Your task to perform on an android device: turn pop-ups off in chrome Image 0: 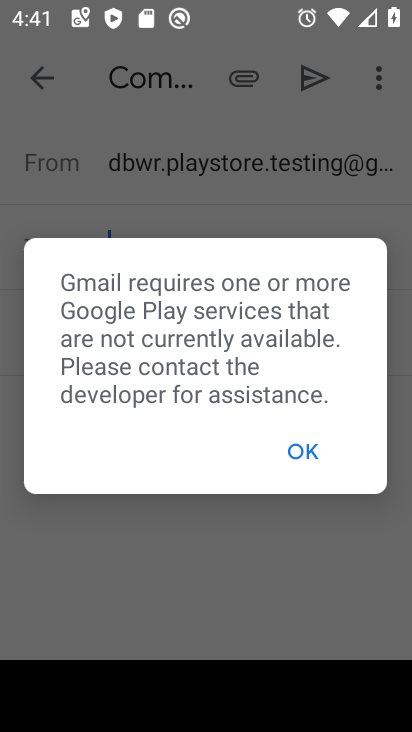
Step 0: press home button
Your task to perform on an android device: turn pop-ups off in chrome Image 1: 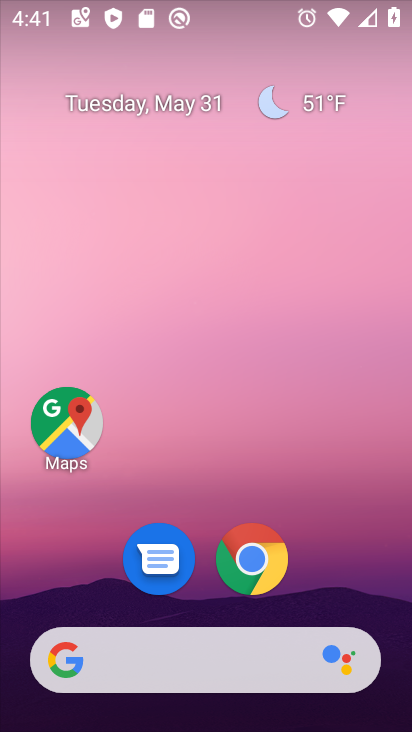
Step 1: click (250, 555)
Your task to perform on an android device: turn pop-ups off in chrome Image 2: 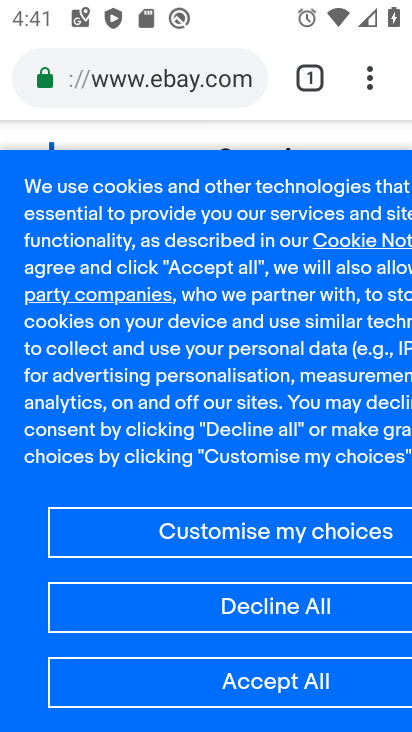
Step 2: click (378, 81)
Your task to perform on an android device: turn pop-ups off in chrome Image 3: 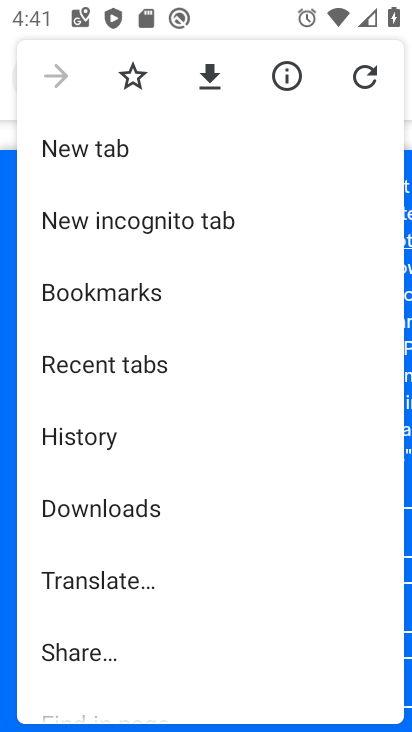
Step 3: drag from (79, 650) to (182, 218)
Your task to perform on an android device: turn pop-ups off in chrome Image 4: 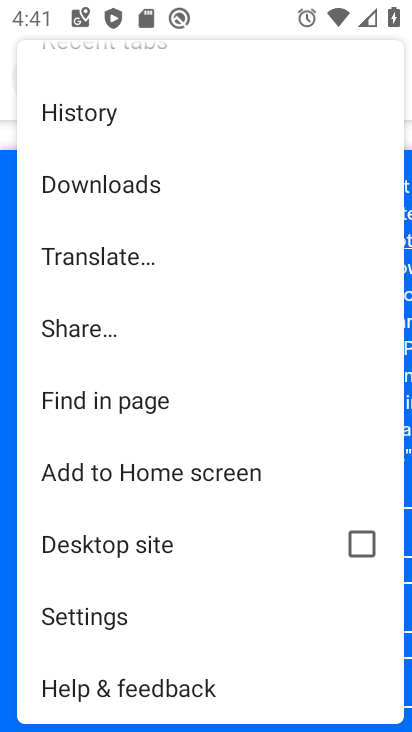
Step 4: click (130, 612)
Your task to perform on an android device: turn pop-ups off in chrome Image 5: 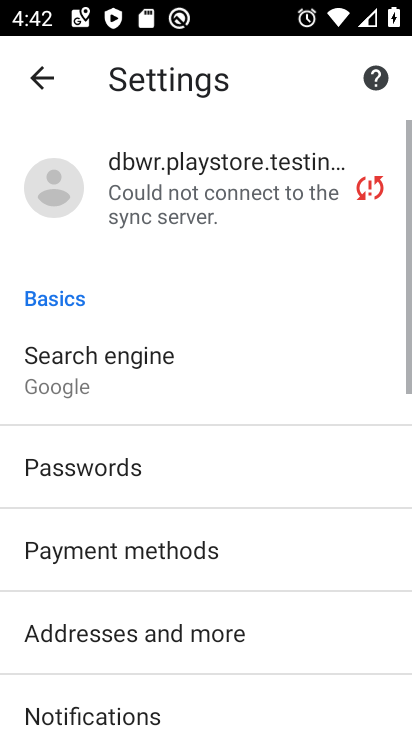
Step 5: drag from (169, 641) to (269, 147)
Your task to perform on an android device: turn pop-ups off in chrome Image 6: 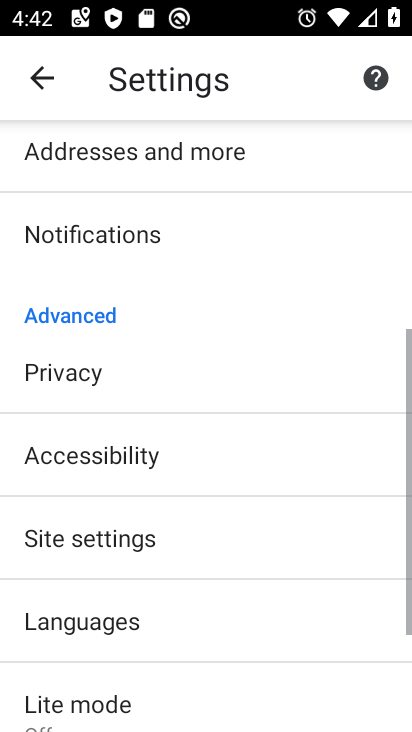
Step 6: click (146, 541)
Your task to perform on an android device: turn pop-ups off in chrome Image 7: 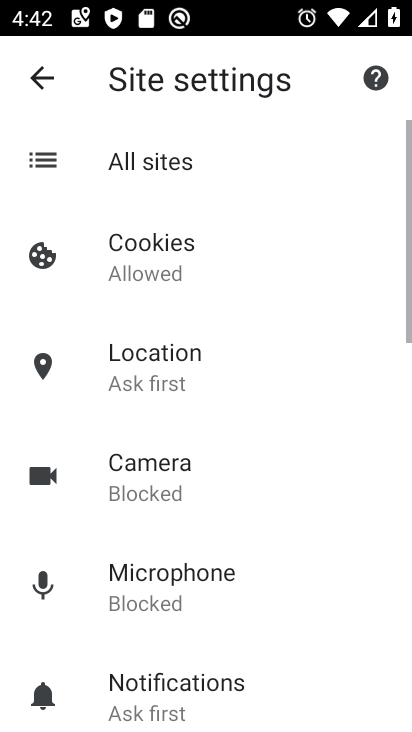
Step 7: drag from (141, 649) to (221, 270)
Your task to perform on an android device: turn pop-ups off in chrome Image 8: 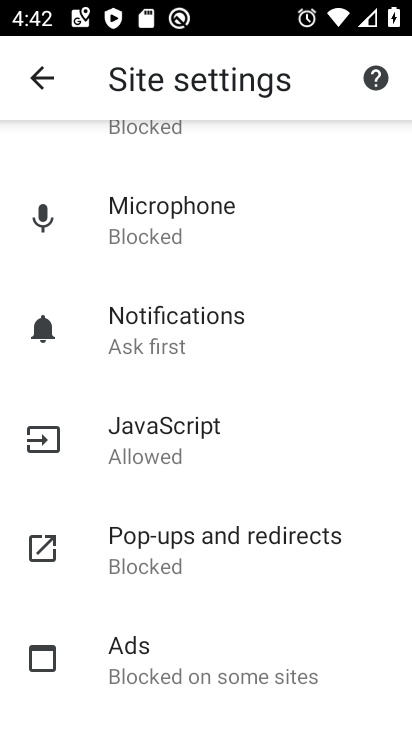
Step 8: click (263, 519)
Your task to perform on an android device: turn pop-ups off in chrome Image 9: 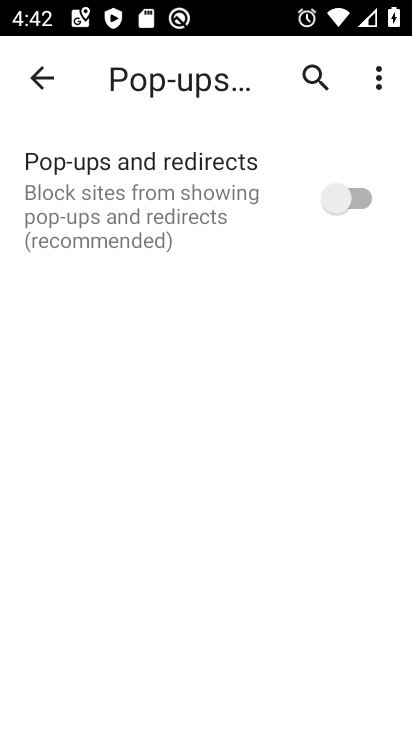
Step 9: task complete